Your task to perform on an android device: add a contact in the contacts app Image 0: 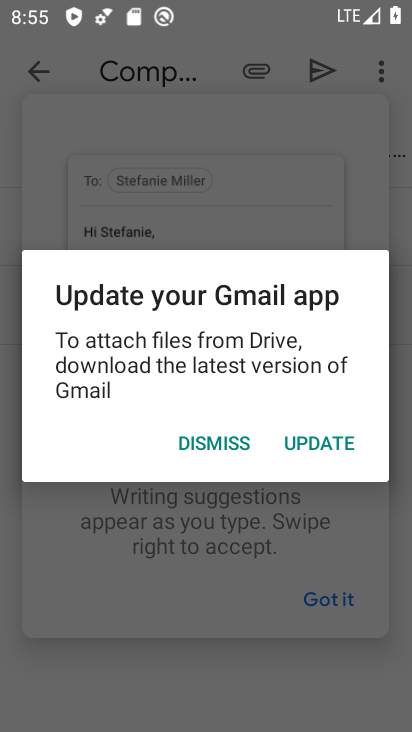
Step 0: press home button
Your task to perform on an android device: add a contact in the contacts app Image 1: 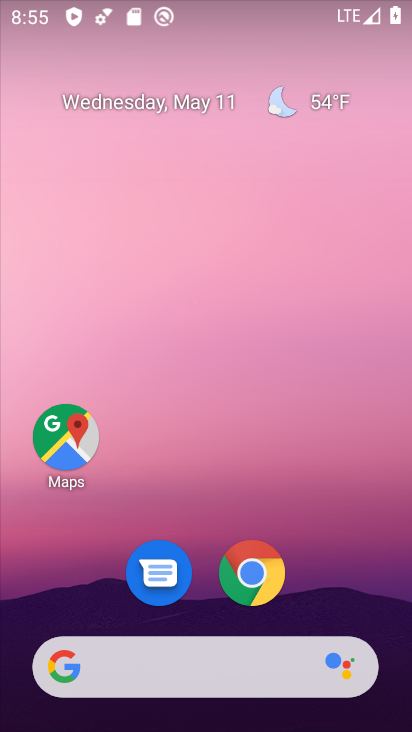
Step 1: drag from (316, 539) to (395, 0)
Your task to perform on an android device: add a contact in the contacts app Image 2: 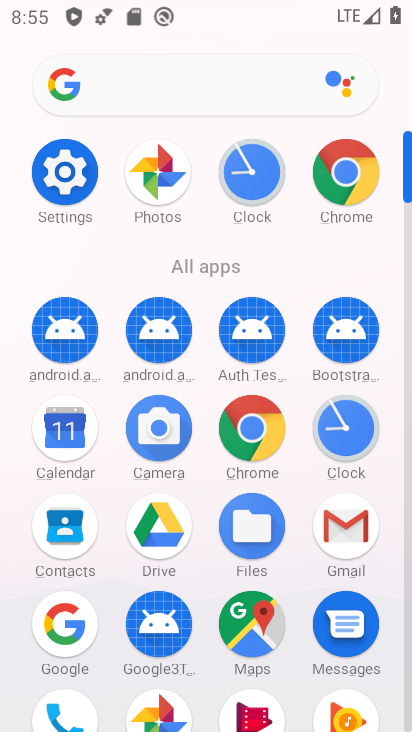
Step 2: click (48, 526)
Your task to perform on an android device: add a contact in the contacts app Image 3: 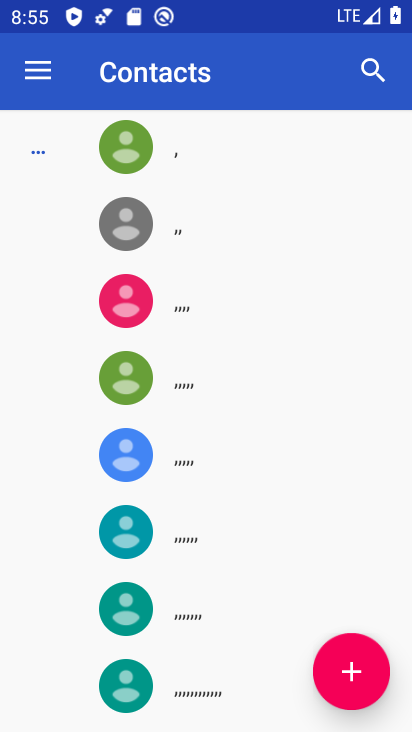
Step 3: click (342, 677)
Your task to perform on an android device: add a contact in the contacts app Image 4: 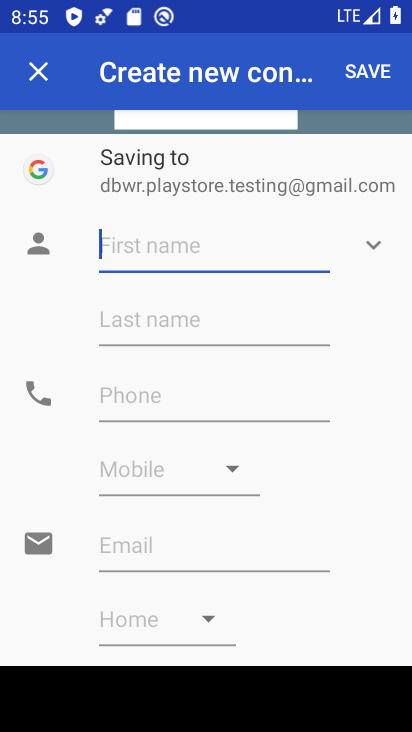
Step 4: type "sdsfafscd"
Your task to perform on an android device: add a contact in the contacts app Image 5: 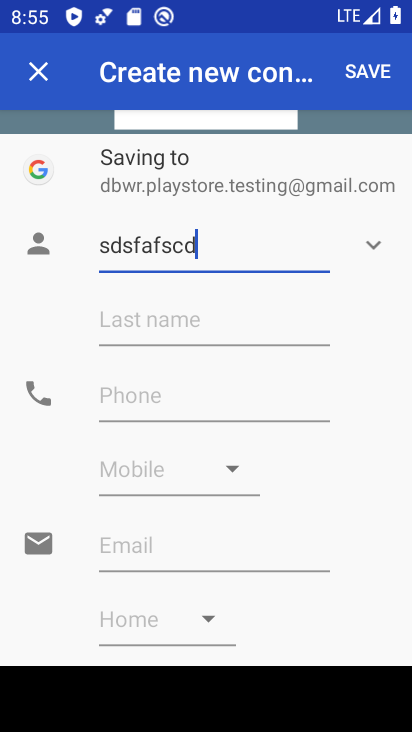
Step 5: click (160, 394)
Your task to perform on an android device: add a contact in the contacts app Image 6: 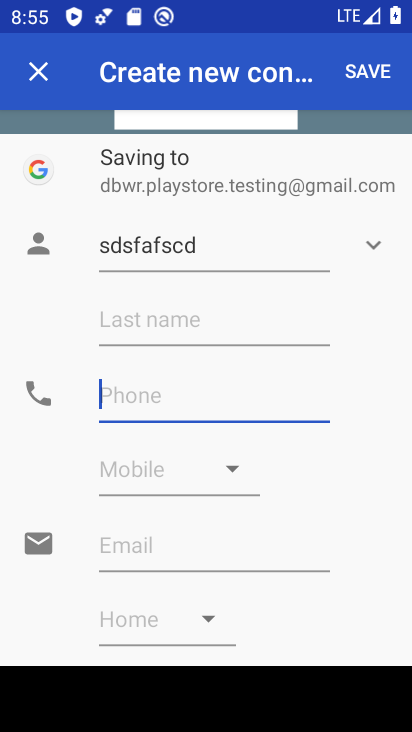
Step 6: type "9897676545"
Your task to perform on an android device: add a contact in the contacts app Image 7: 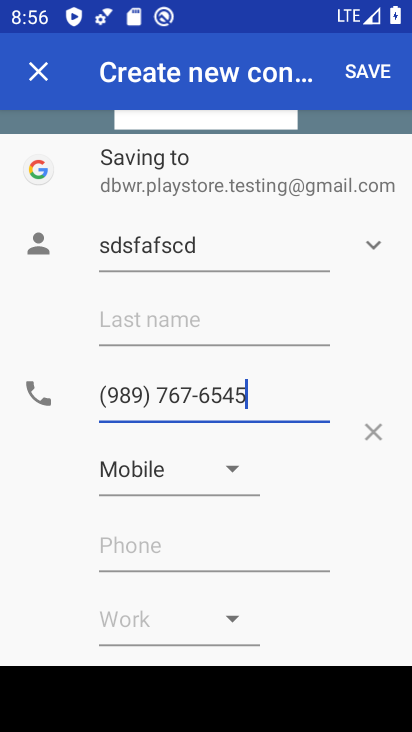
Step 7: click (368, 72)
Your task to perform on an android device: add a contact in the contacts app Image 8: 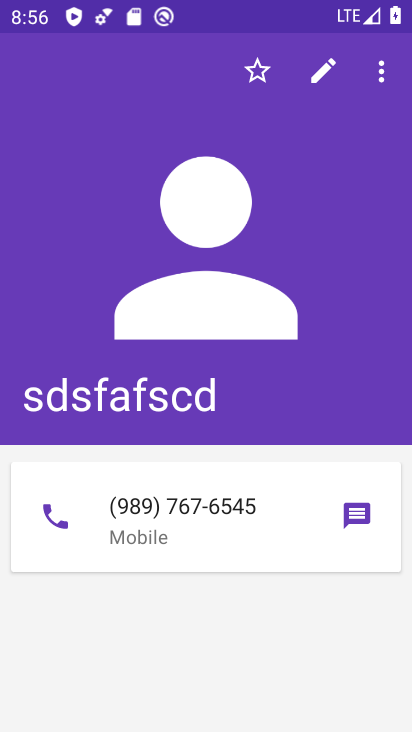
Step 8: task complete